Your task to perform on an android device: What's the weather going to be this weekend? Image 0: 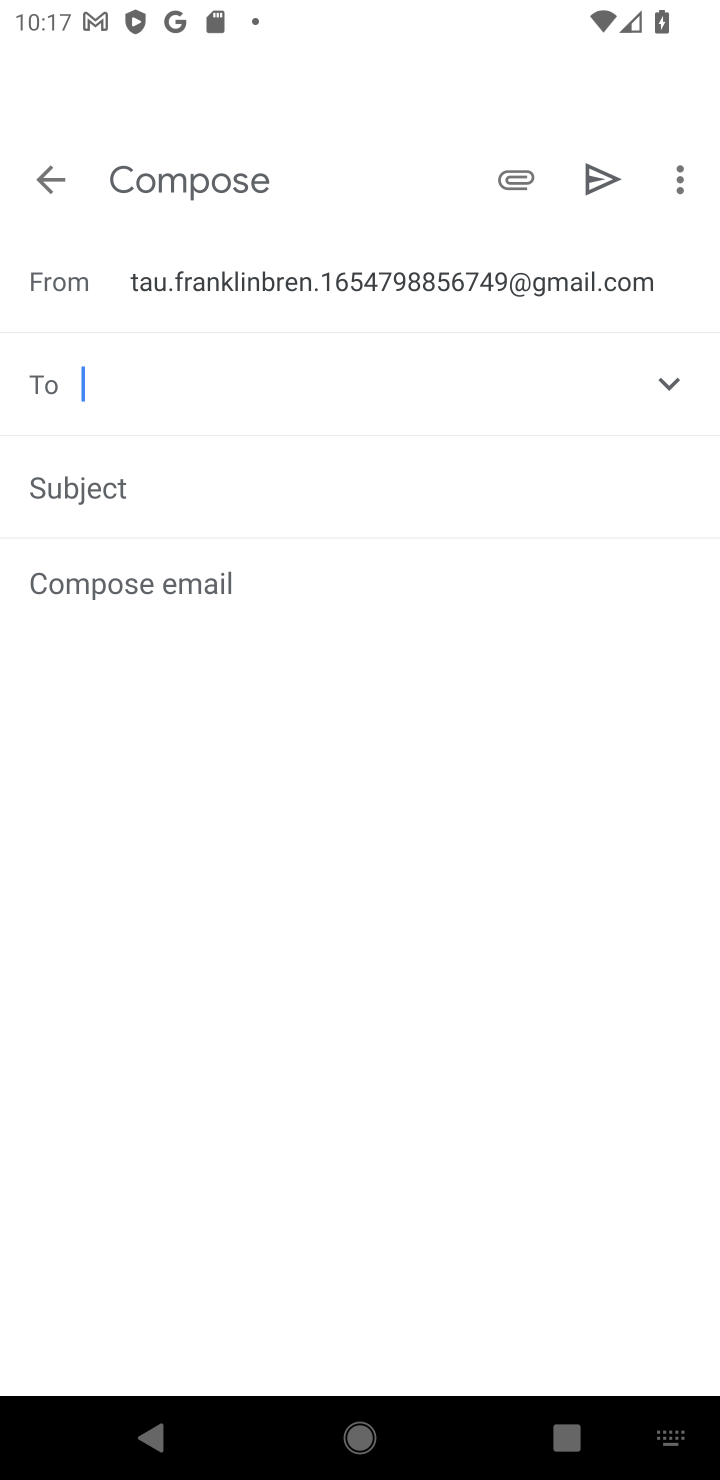
Step 0: press home button
Your task to perform on an android device: What's the weather going to be this weekend? Image 1: 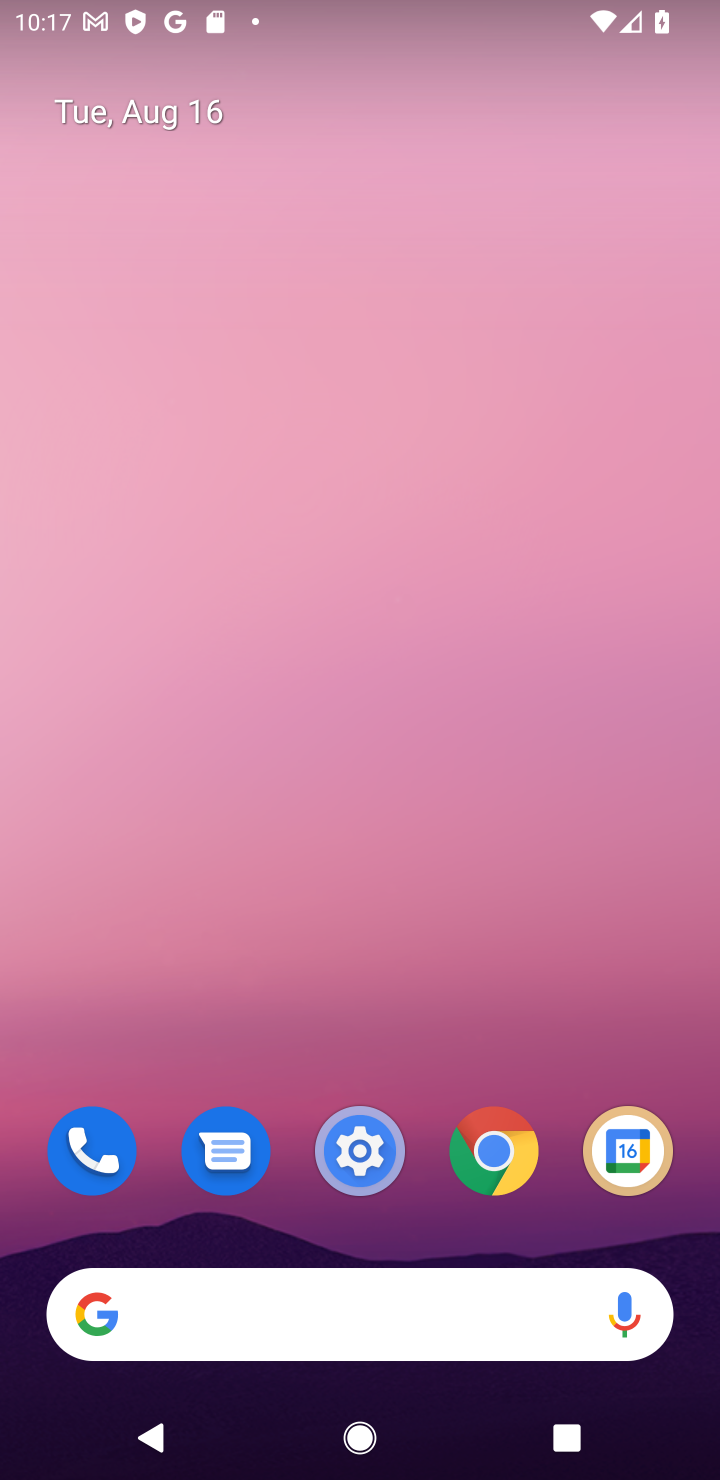
Step 1: drag from (317, 1026) to (414, 95)
Your task to perform on an android device: What's the weather going to be this weekend? Image 2: 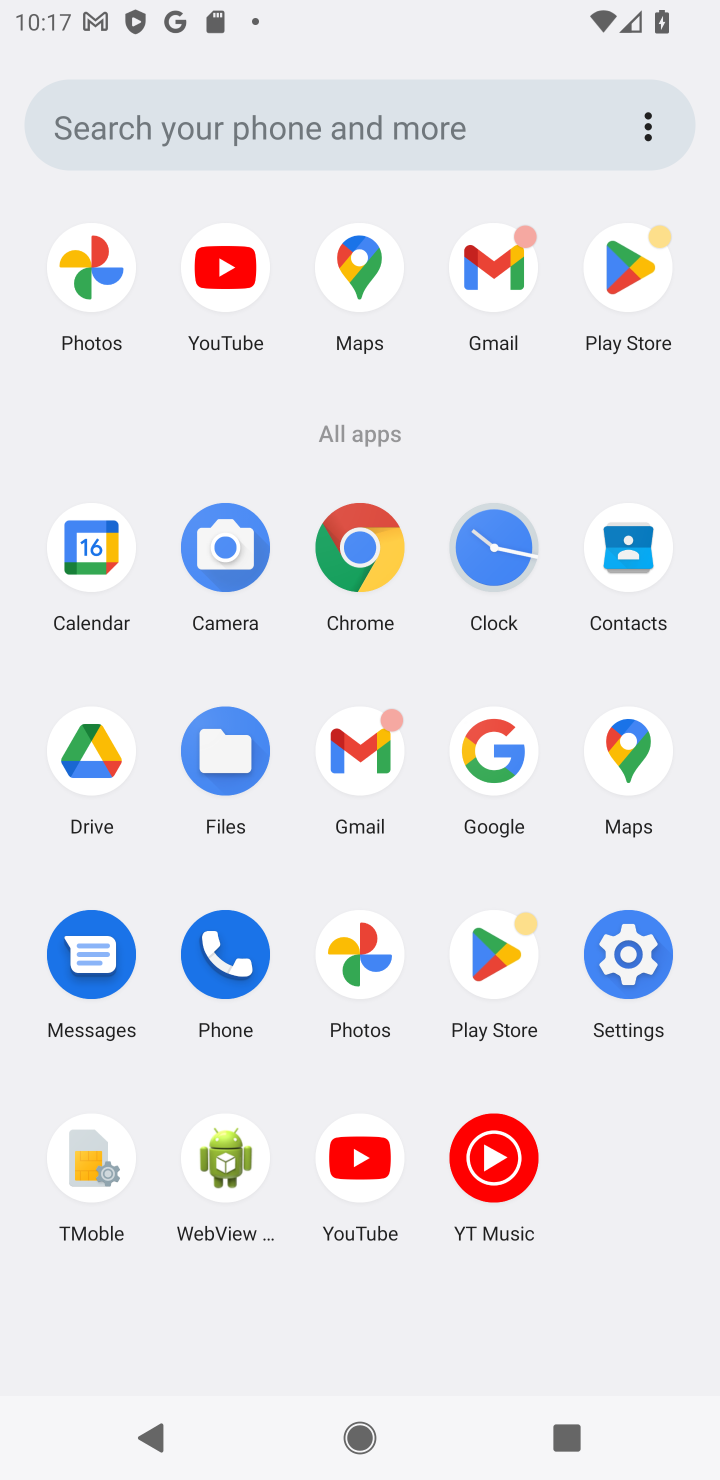
Step 2: click (493, 756)
Your task to perform on an android device: What's the weather going to be this weekend? Image 3: 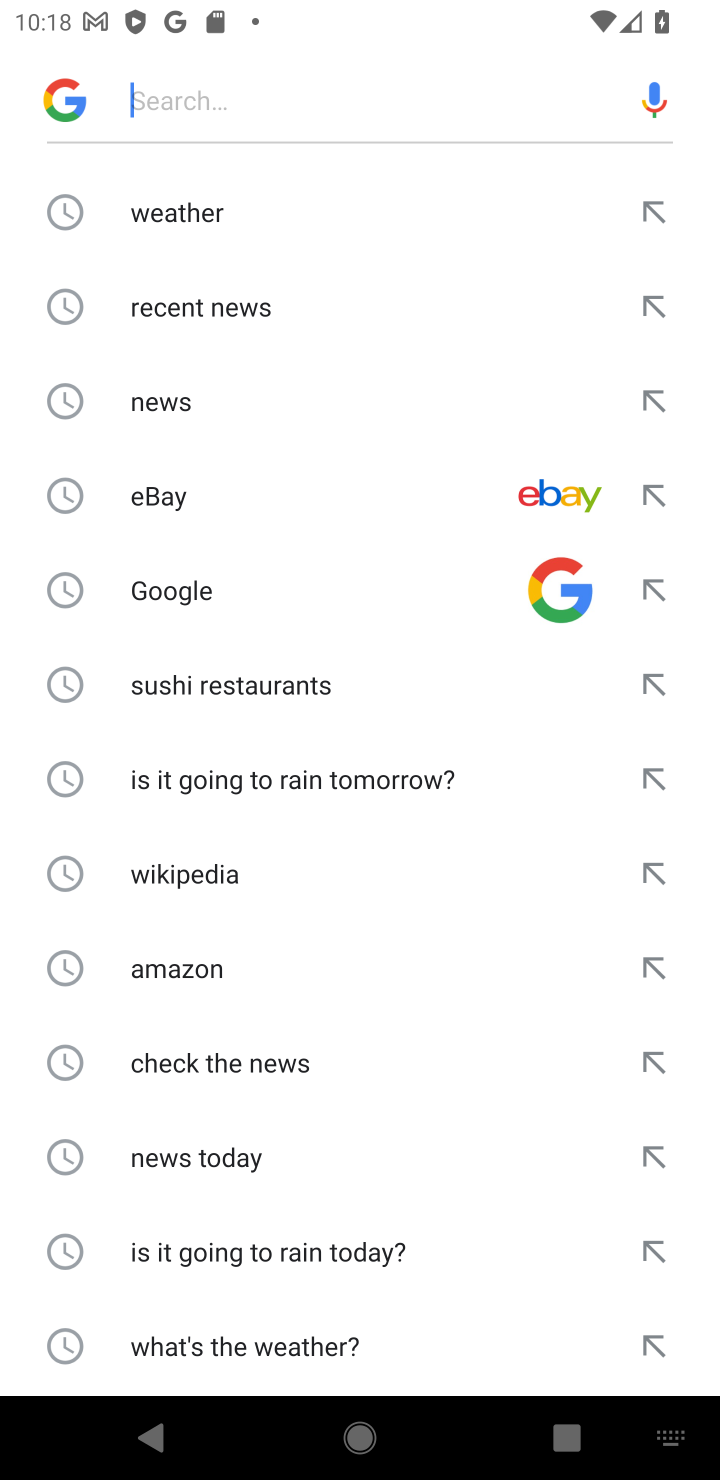
Step 3: click (185, 201)
Your task to perform on an android device: What's the weather going to be this weekend? Image 4: 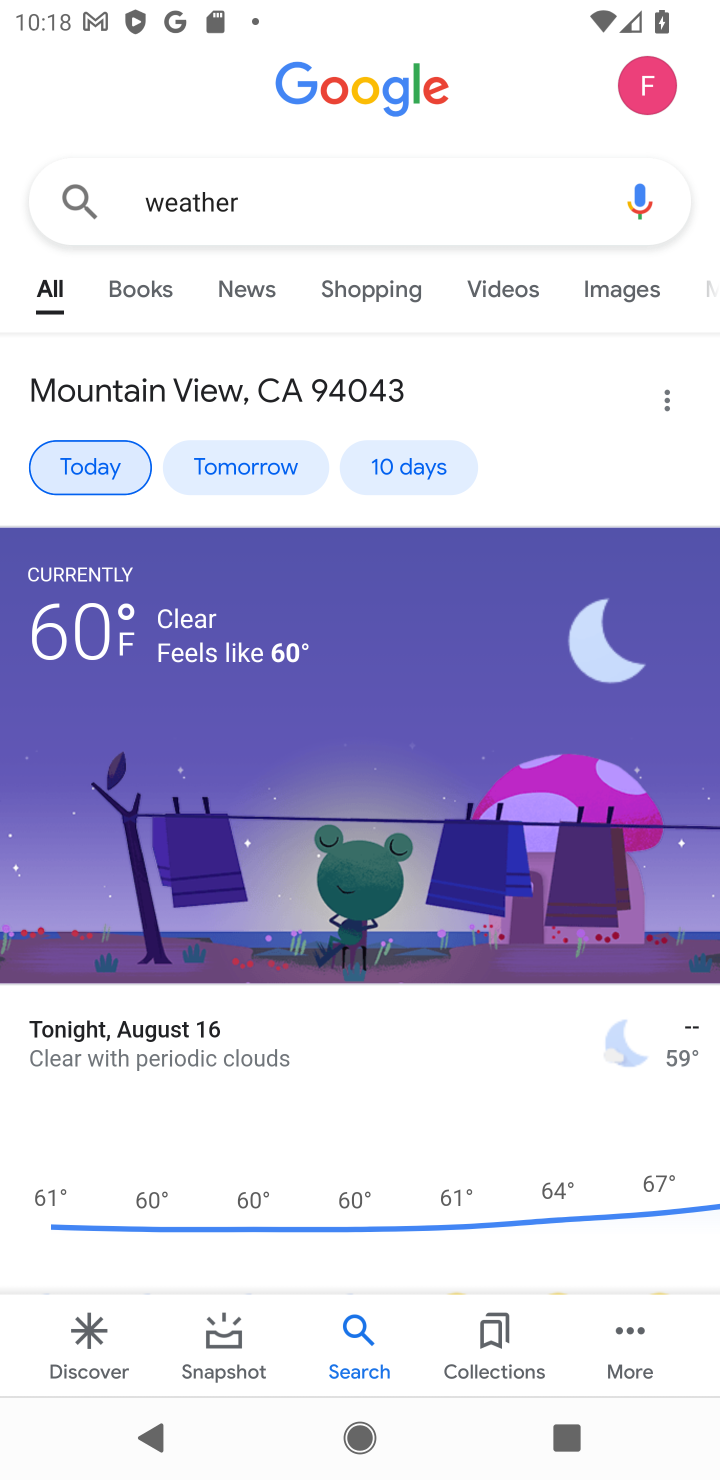
Step 4: click (419, 460)
Your task to perform on an android device: What's the weather going to be this weekend? Image 5: 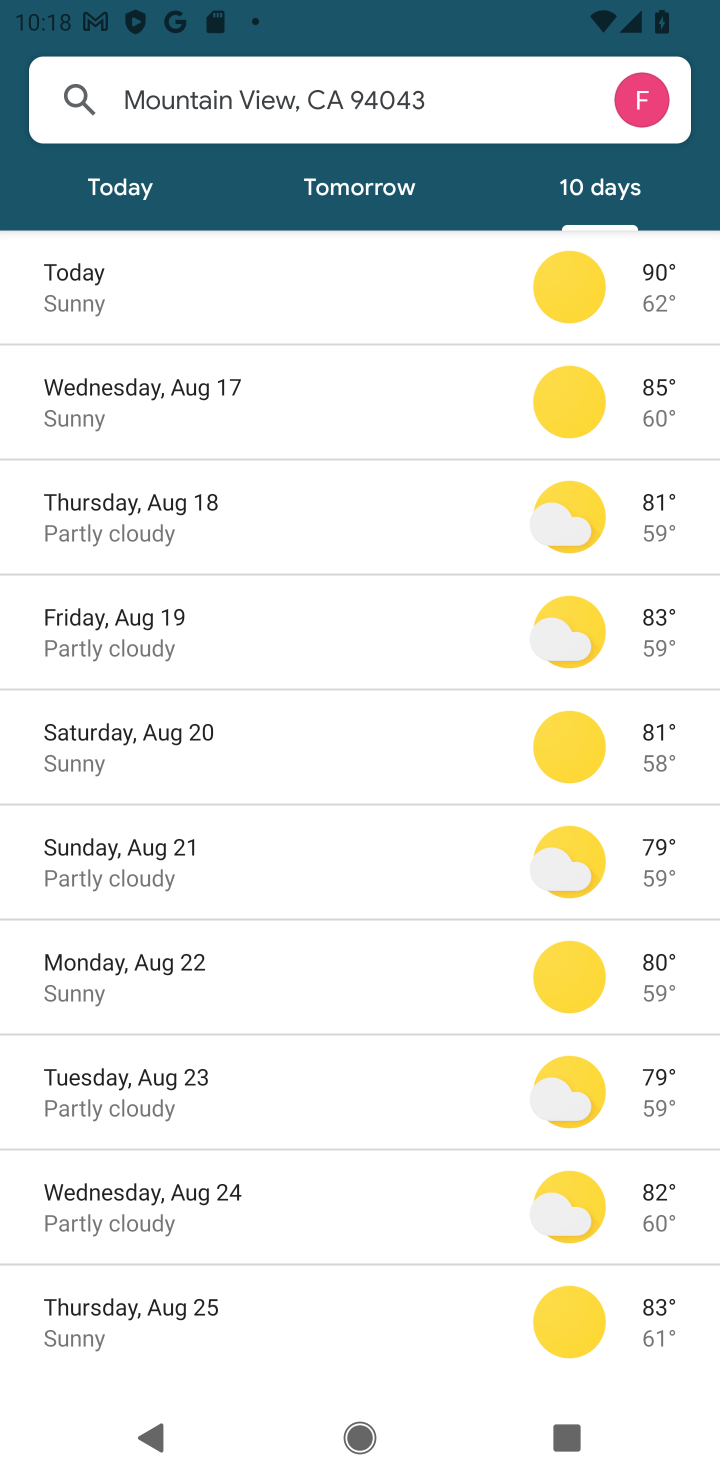
Step 5: task complete